Your task to perform on an android device: Go to ESPN.com Image 0: 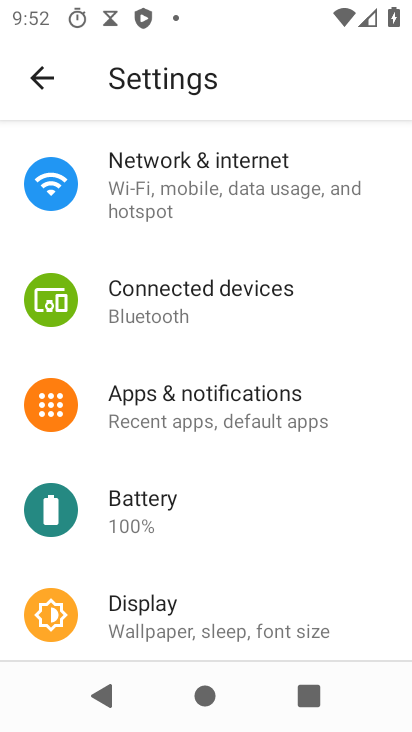
Step 0: press back button
Your task to perform on an android device: Go to ESPN.com Image 1: 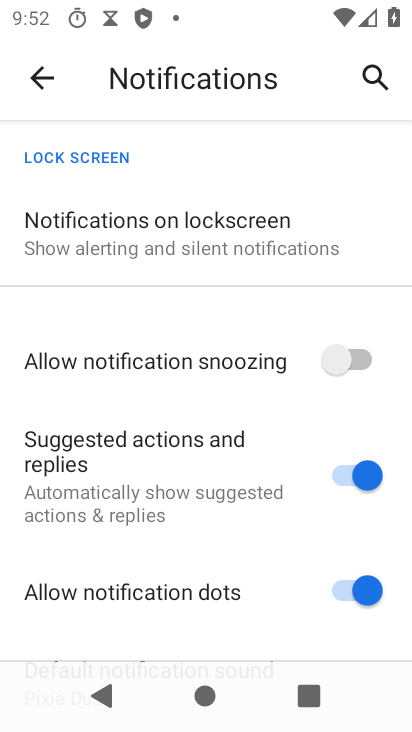
Step 1: press back button
Your task to perform on an android device: Go to ESPN.com Image 2: 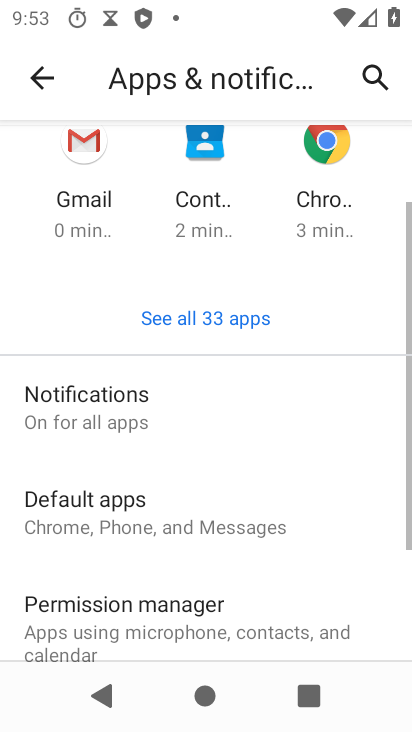
Step 2: press back button
Your task to perform on an android device: Go to ESPN.com Image 3: 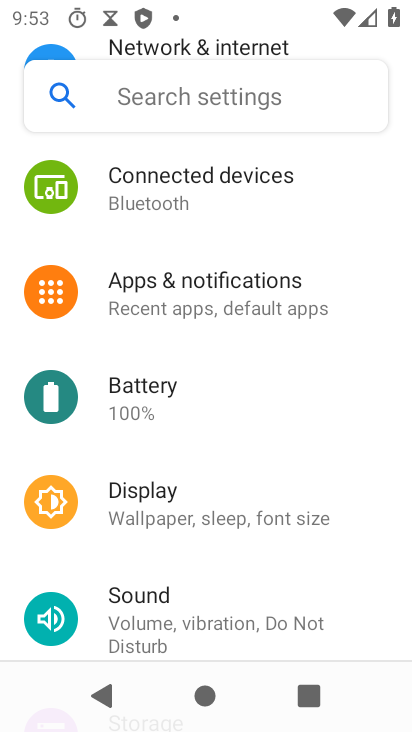
Step 3: press back button
Your task to perform on an android device: Go to ESPN.com Image 4: 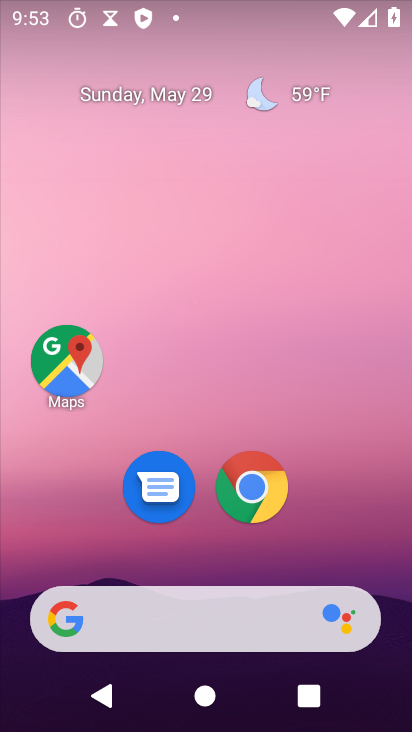
Step 4: click (256, 486)
Your task to perform on an android device: Go to ESPN.com Image 5: 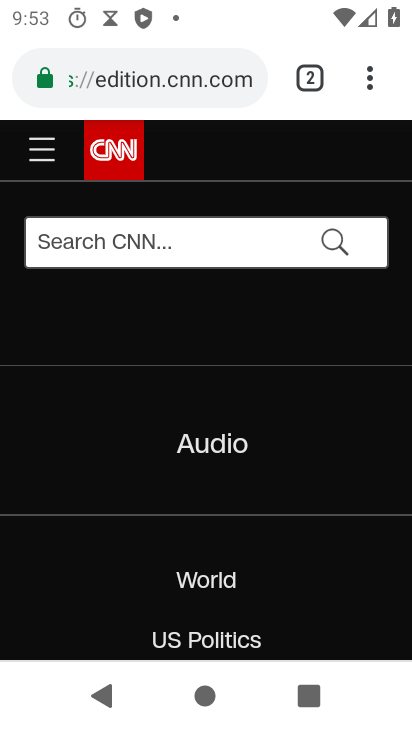
Step 5: click (239, 88)
Your task to perform on an android device: Go to ESPN.com Image 6: 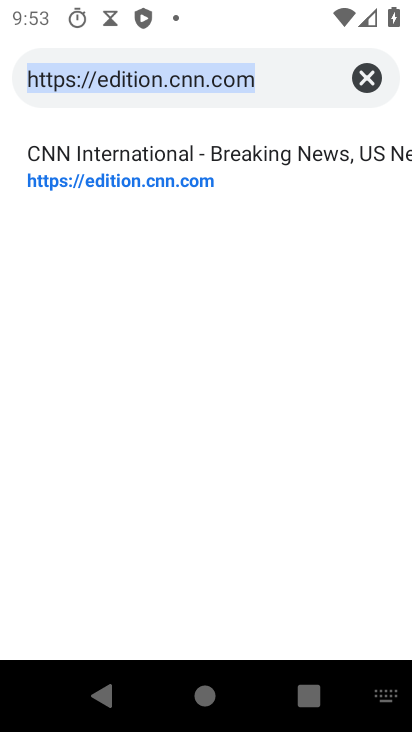
Step 6: click (363, 72)
Your task to perform on an android device: Go to ESPN.com Image 7: 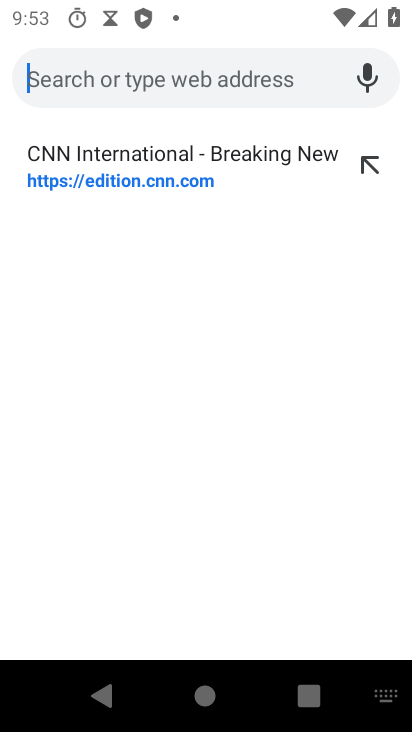
Step 7: type "ESPN.com"
Your task to perform on an android device: Go to ESPN.com Image 8: 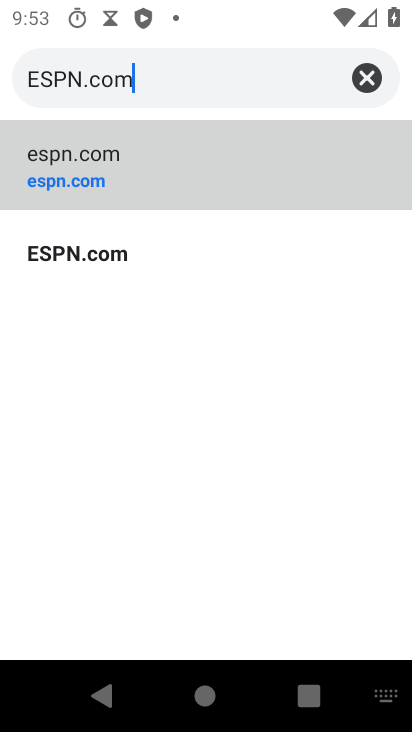
Step 8: type ""
Your task to perform on an android device: Go to ESPN.com Image 9: 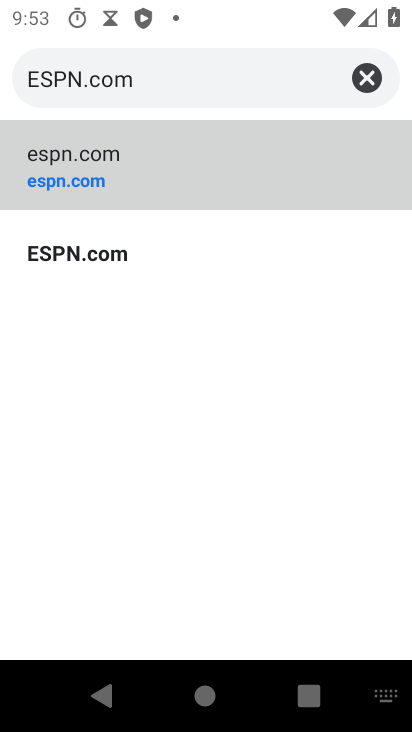
Step 9: click (80, 249)
Your task to perform on an android device: Go to ESPN.com Image 10: 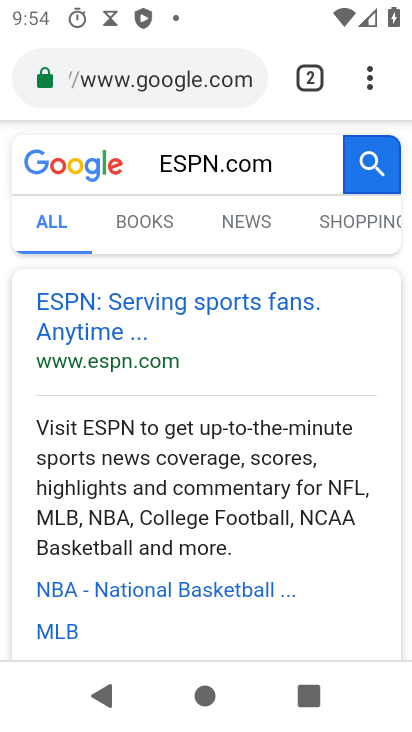
Step 10: click (152, 323)
Your task to perform on an android device: Go to ESPN.com Image 11: 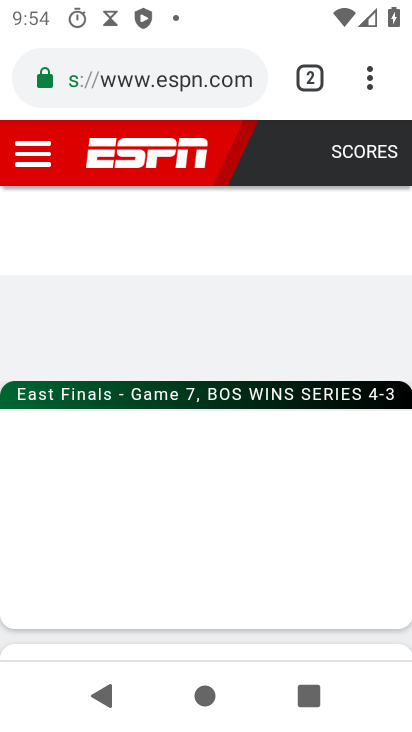
Step 11: task complete